Your task to perform on an android device: set the stopwatch Image 0: 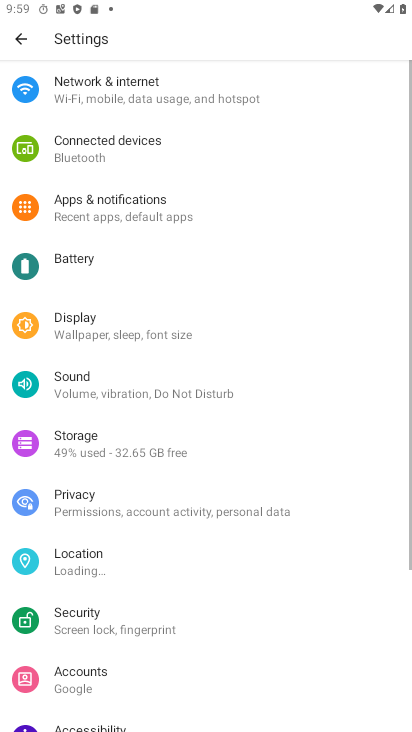
Step 0: drag from (284, 716) to (258, 299)
Your task to perform on an android device: set the stopwatch Image 1: 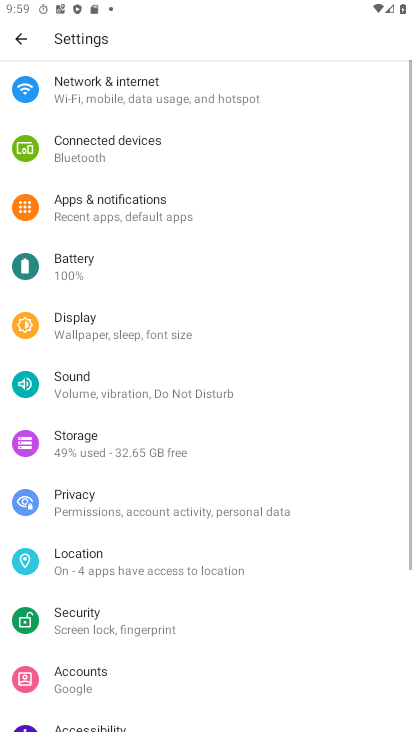
Step 1: press back button
Your task to perform on an android device: set the stopwatch Image 2: 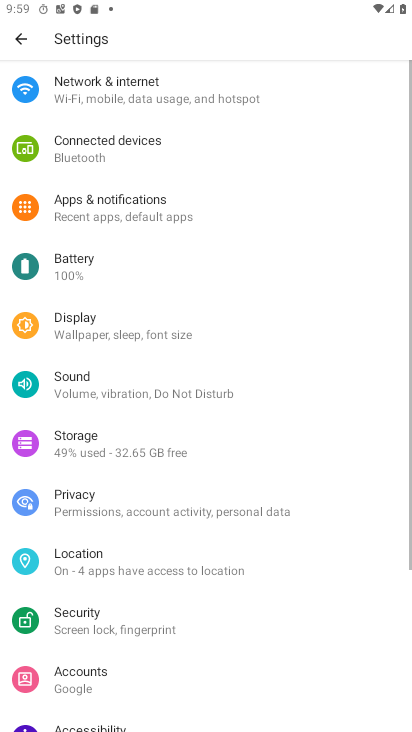
Step 2: press back button
Your task to perform on an android device: set the stopwatch Image 3: 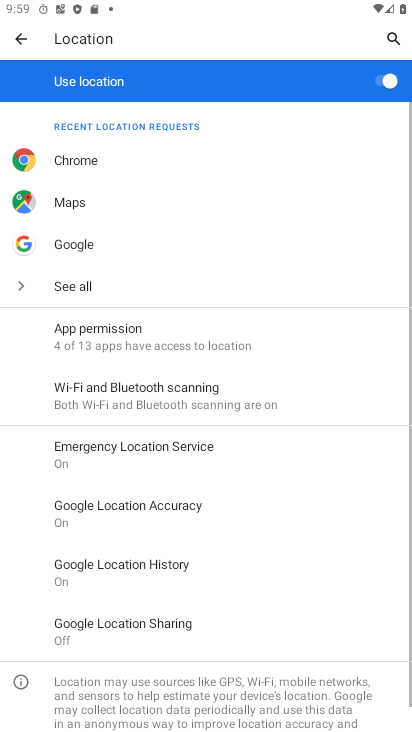
Step 3: press home button
Your task to perform on an android device: set the stopwatch Image 4: 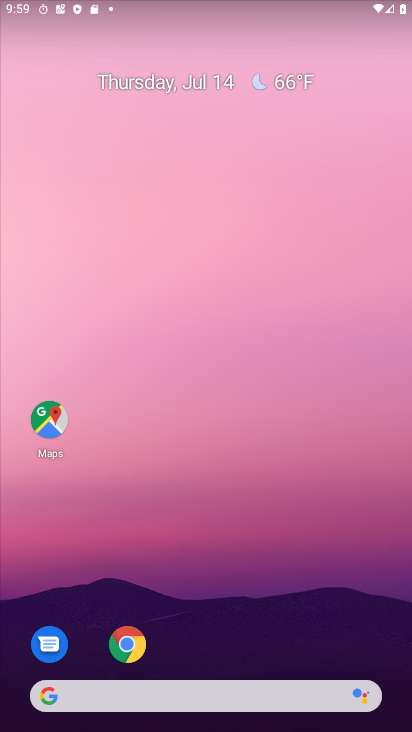
Step 4: drag from (196, 407) to (161, 95)
Your task to perform on an android device: set the stopwatch Image 5: 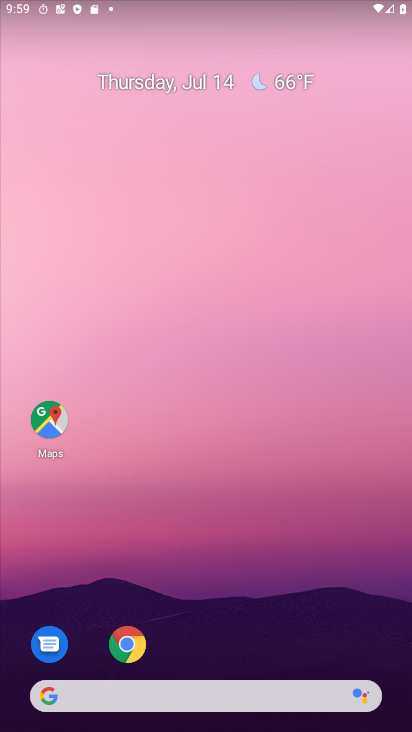
Step 5: drag from (240, 590) to (187, 131)
Your task to perform on an android device: set the stopwatch Image 6: 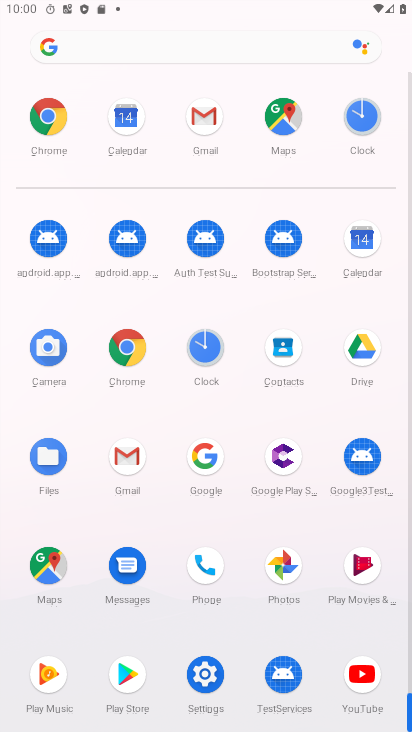
Step 6: click (212, 355)
Your task to perform on an android device: set the stopwatch Image 7: 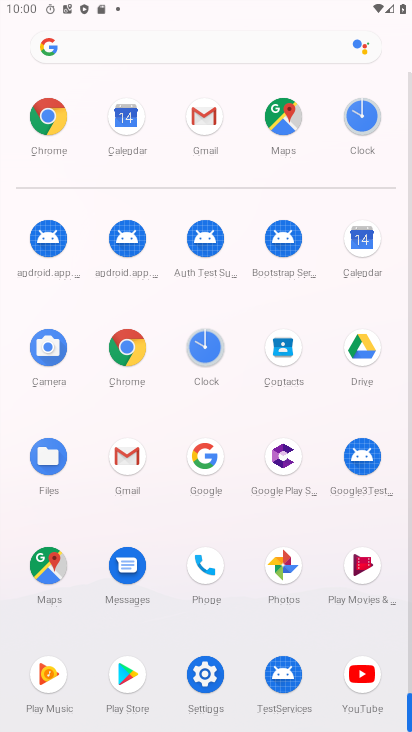
Step 7: click (211, 355)
Your task to perform on an android device: set the stopwatch Image 8: 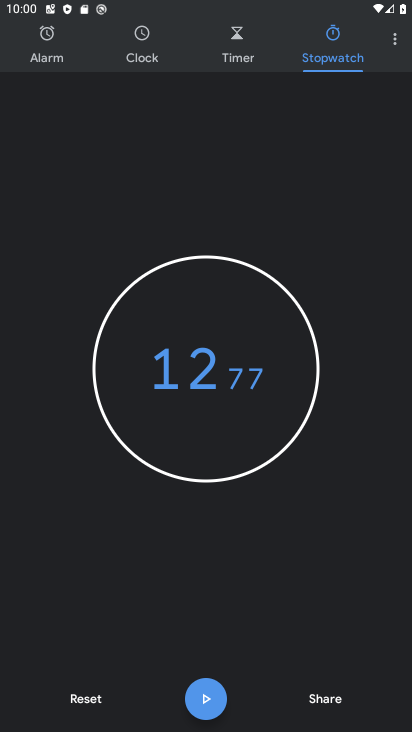
Step 8: click (323, 61)
Your task to perform on an android device: set the stopwatch Image 9: 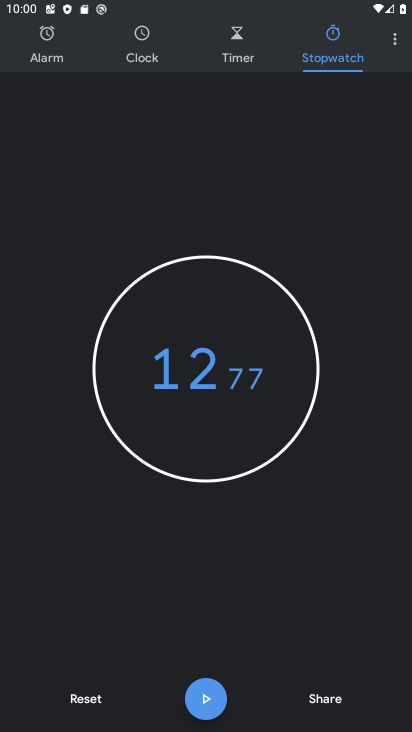
Step 9: click (205, 707)
Your task to perform on an android device: set the stopwatch Image 10: 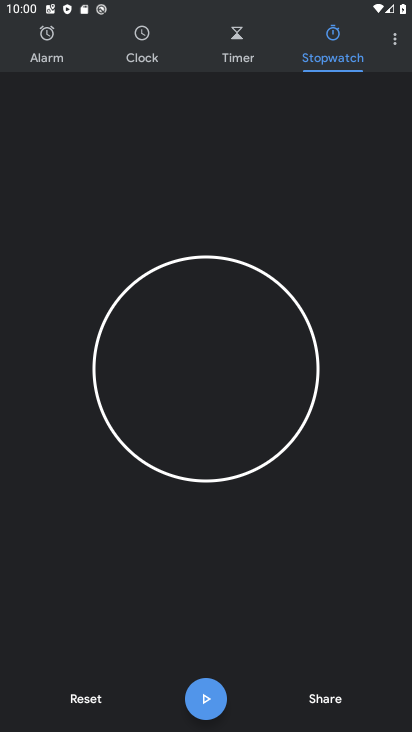
Step 10: click (206, 706)
Your task to perform on an android device: set the stopwatch Image 11: 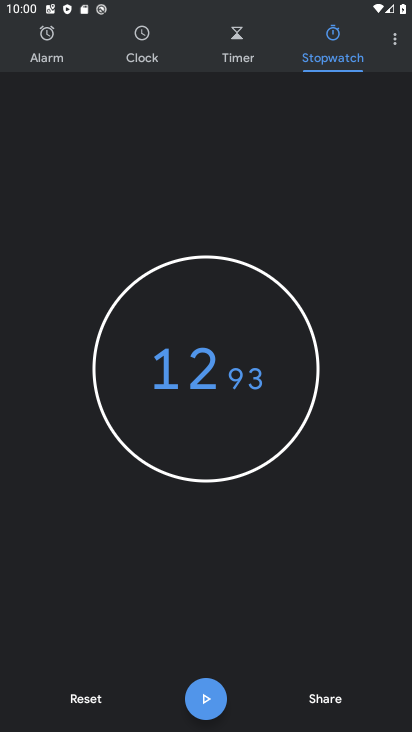
Step 11: click (207, 708)
Your task to perform on an android device: set the stopwatch Image 12: 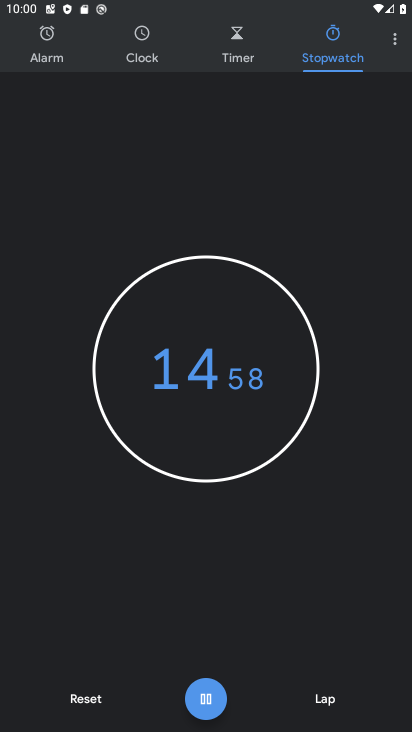
Step 12: click (207, 704)
Your task to perform on an android device: set the stopwatch Image 13: 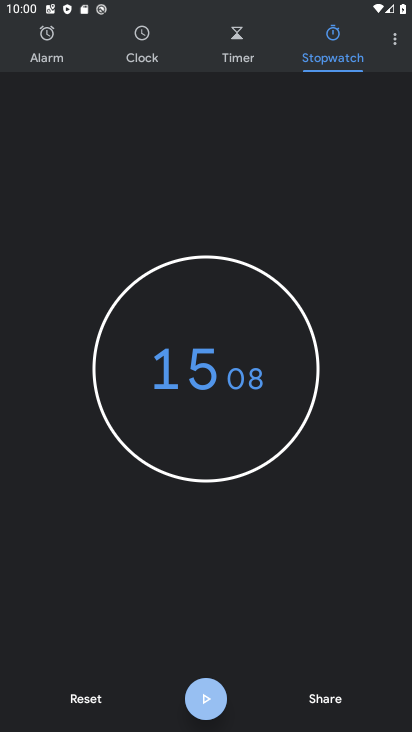
Step 13: click (210, 692)
Your task to perform on an android device: set the stopwatch Image 14: 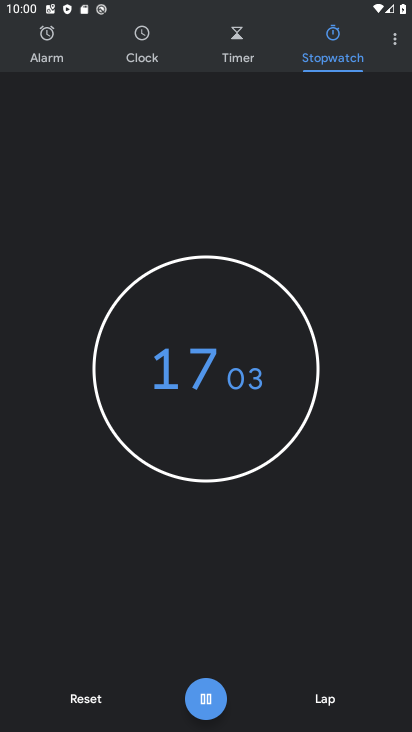
Step 14: click (205, 703)
Your task to perform on an android device: set the stopwatch Image 15: 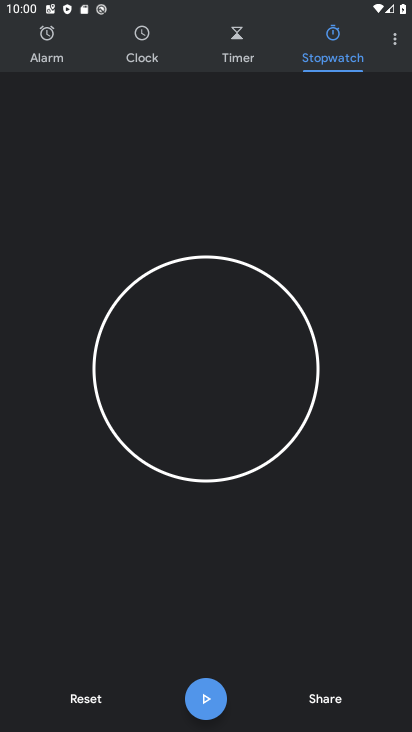
Step 15: task complete